Your task to perform on an android device: turn on wifi Image 0: 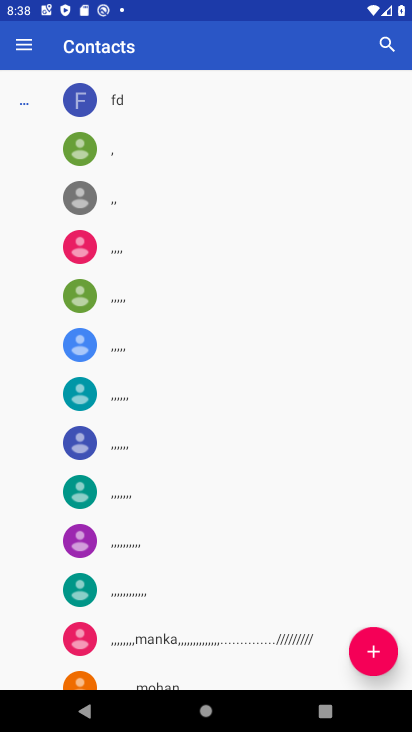
Step 0: press home button
Your task to perform on an android device: turn on wifi Image 1: 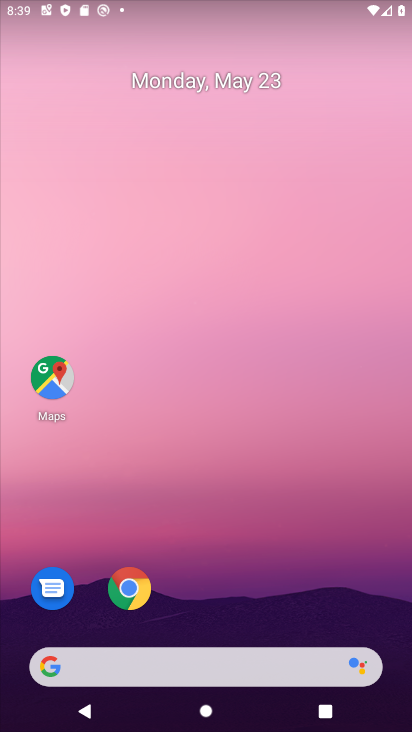
Step 1: drag from (399, 710) to (301, 278)
Your task to perform on an android device: turn on wifi Image 2: 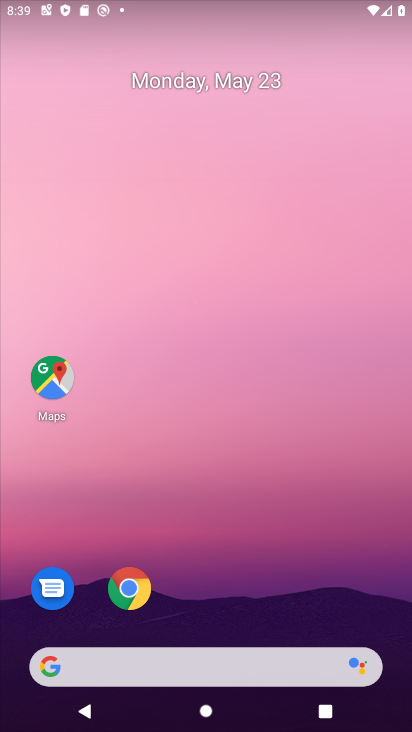
Step 2: drag from (401, 721) to (322, 204)
Your task to perform on an android device: turn on wifi Image 3: 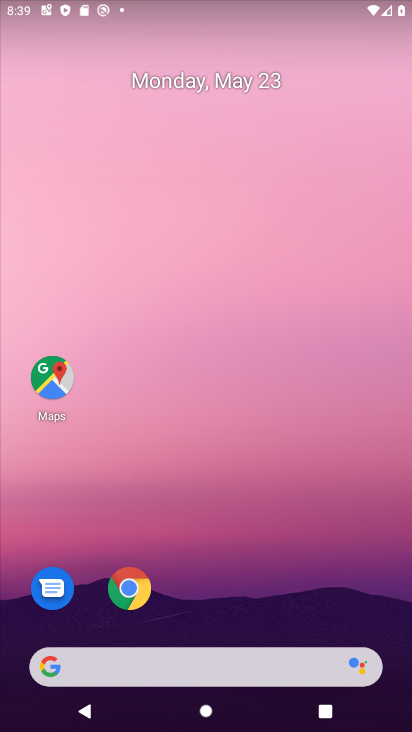
Step 3: drag from (394, 720) to (339, 109)
Your task to perform on an android device: turn on wifi Image 4: 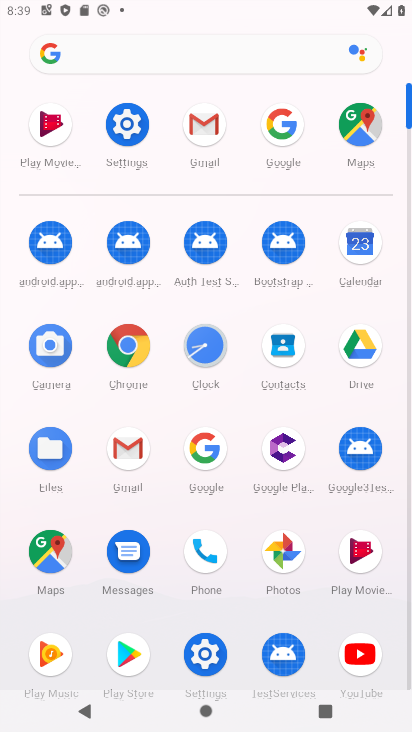
Step 4: click (203, 656)
Your task to perform on an android device: turn on wifi Image 5: 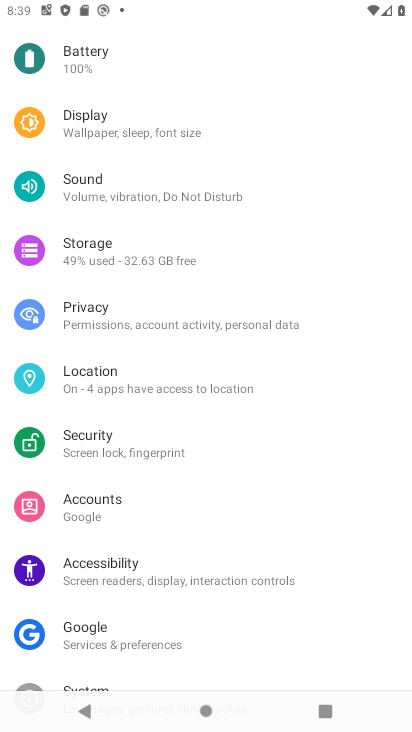
Step 5: drag from (334, 115) to (375, 533)
Your task to perform on an android device: turn on wifi Image 6: 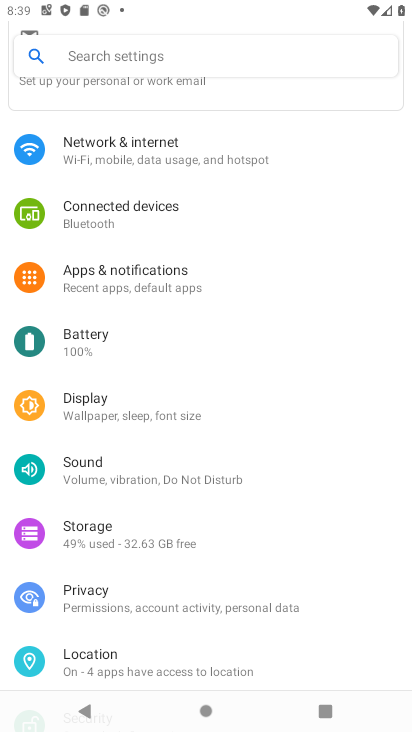
Step 6: drag from (333, 140) to (319, 460)
Your task to perform on an android device: turn on wifi Image 7: 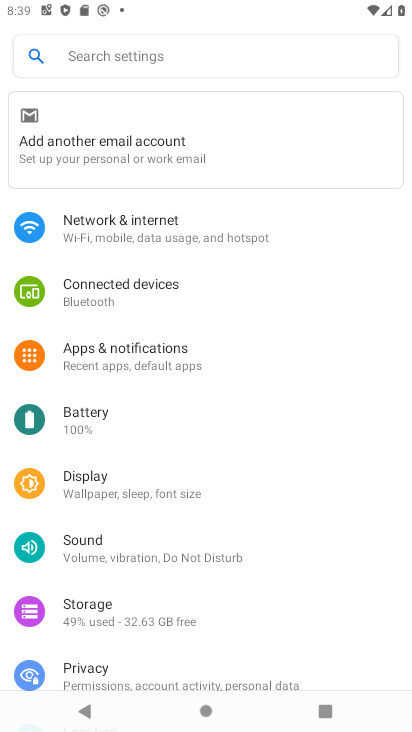
Step 7: click (129, 233)
Your task to perform on an android device: turn on wifi Image 8: 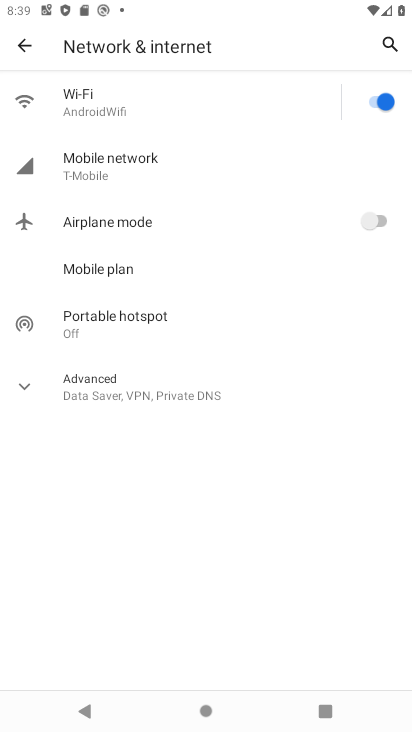
Step 8: task complete